Your task to perform on an android device: check out phone information Image 0: 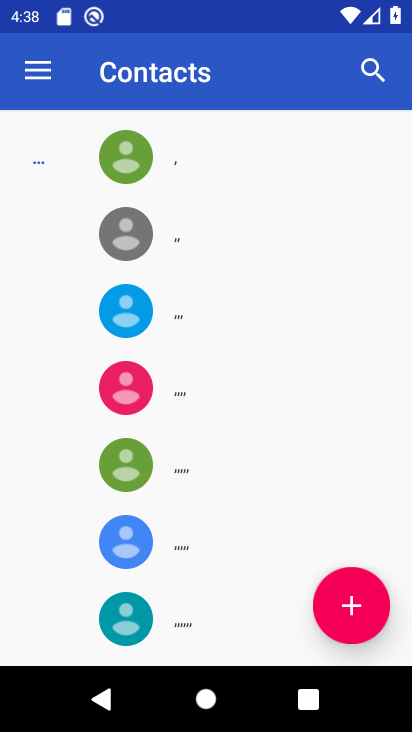
Step 0: press home button
Your task to perform on an android device: check out phone information Image 1: 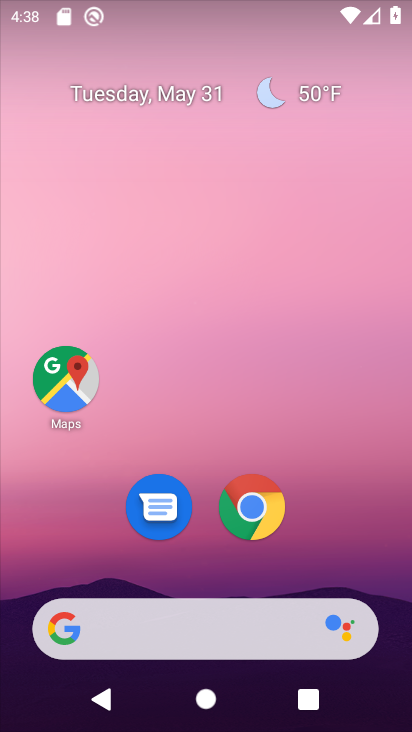
Step 1: drag from (201, 456) to (212, 57)
Your task to perform on an android device: check out phone information Image 2: 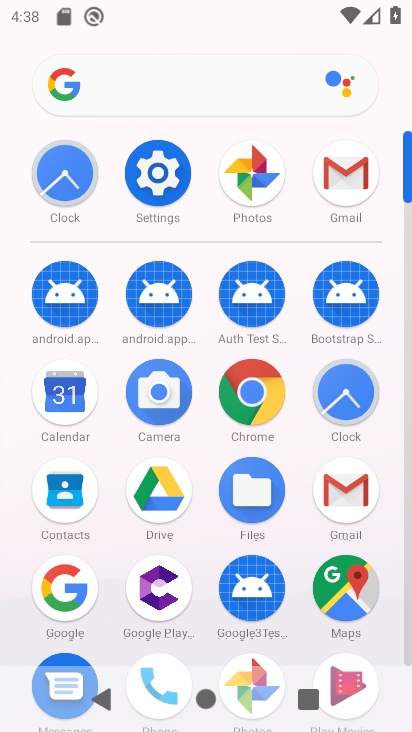
Step 2: drag from (206, 518) to (187, 325)
Your task to perform on an android device: check out phone information Image 3: 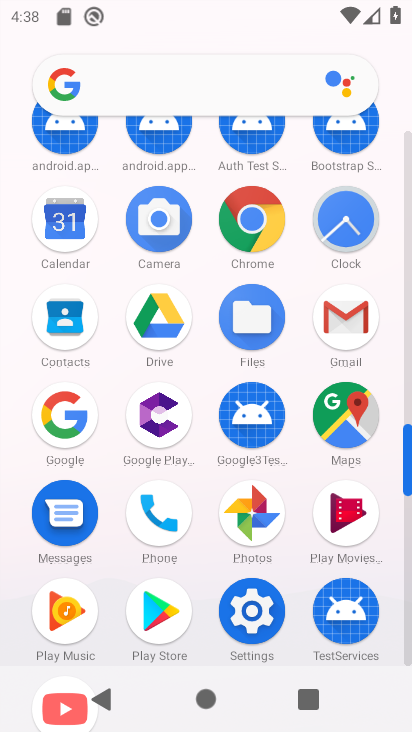
Step 3: click (167, 495)
Your task to perform on an android device: check out phone information Image 4: 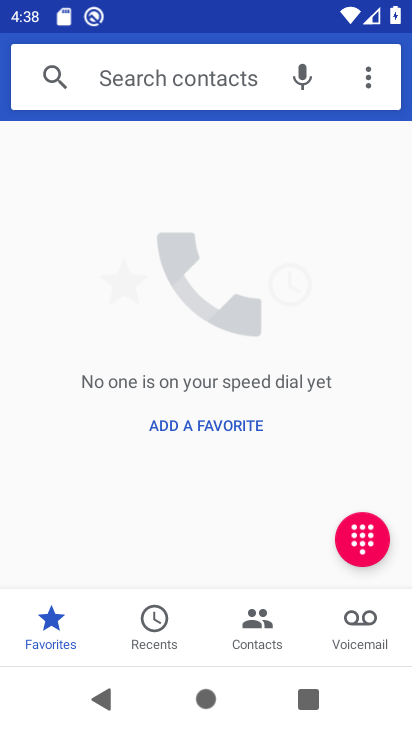
Step 4: click (362, 84)
Your task to perform on an android device: check out phone information Image 5: 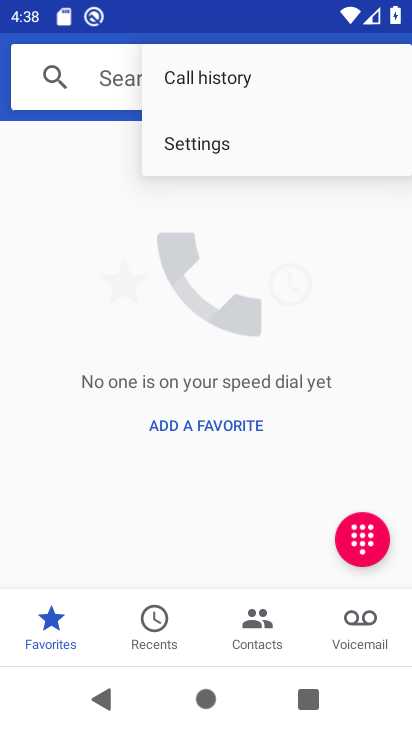
Step 5: click (295, 136)
Your task to perform on an android device: check out phone information Image 6: 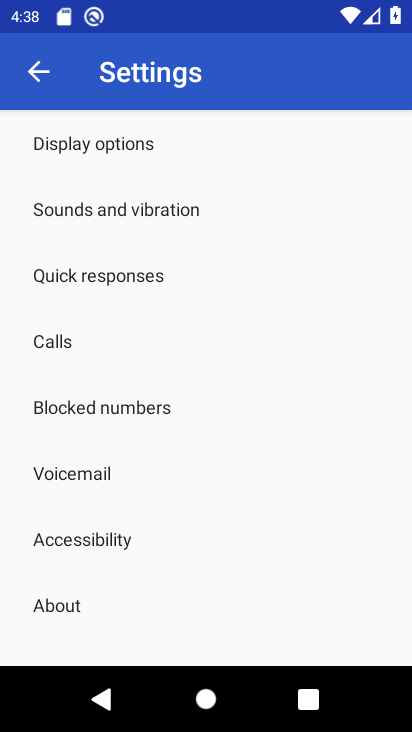
Step 6: click (97, 621)
Your task to perform on an android device: check out phone information Image 7: 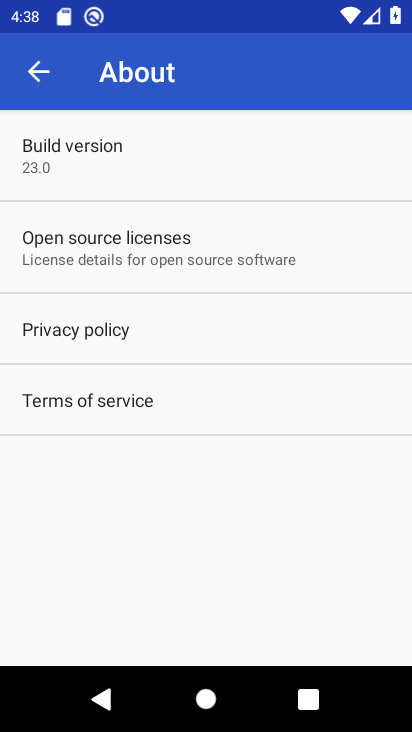
Step 7: task complete